Your task to perform on an android device: Do I have any events this weekend? Image 0: 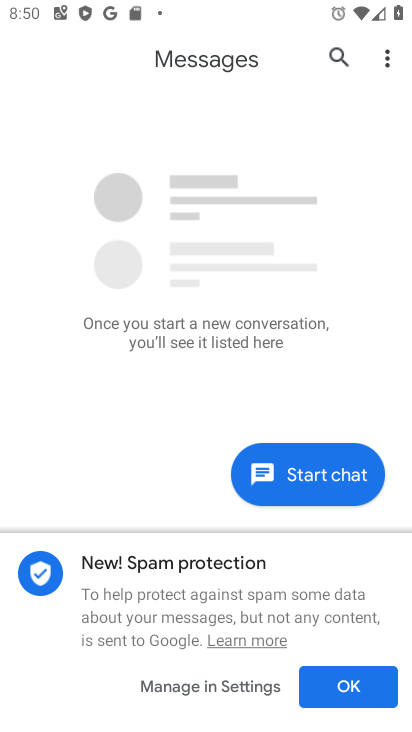
Step 0: press home button
Your task to perform on an android device: Do I have any events this weekend? Image 1: 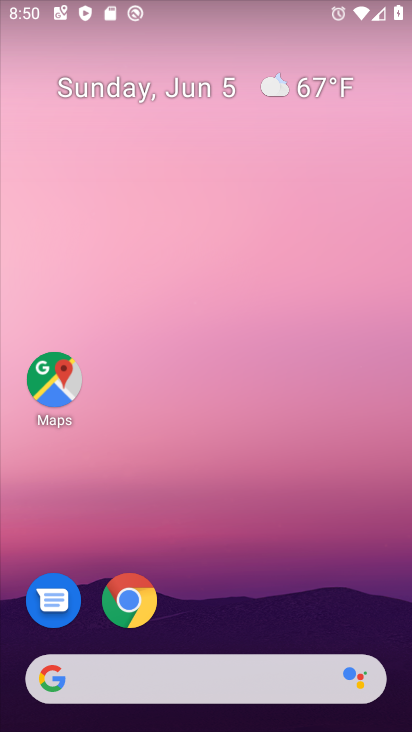
Step 1: drag from (400, 653) to (327, 22)
Your task to perform on an android device: Do I have any events this weekend? Image 2: 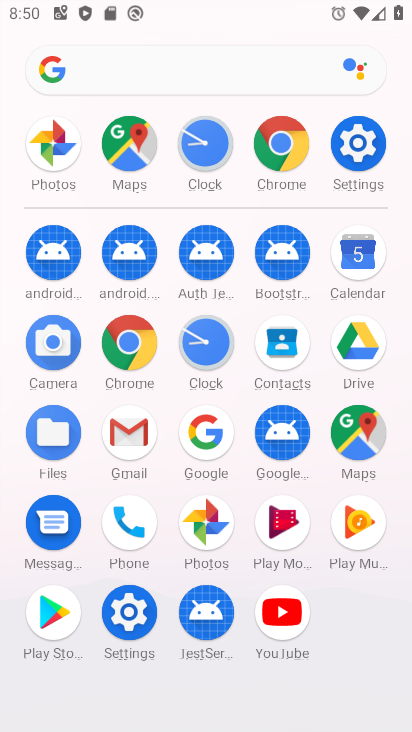
Step 2: click (354, 245)
Your task to perform on an android device: Do I have any events this weekend? Image 3: 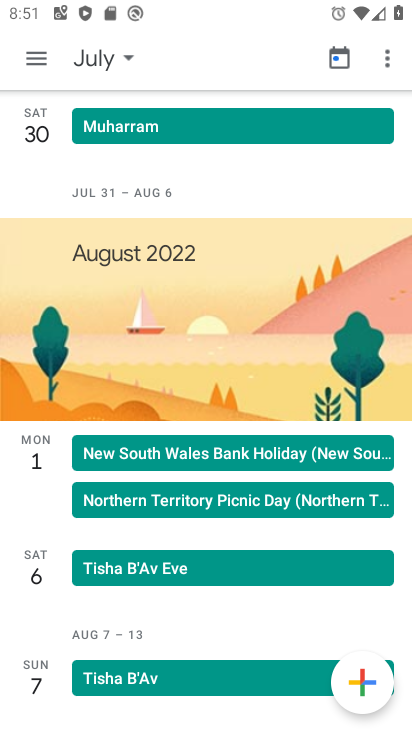
Step 3: click (85, 63)
Your task to perform on an android device: Do I have any events this weekend? Image 4: 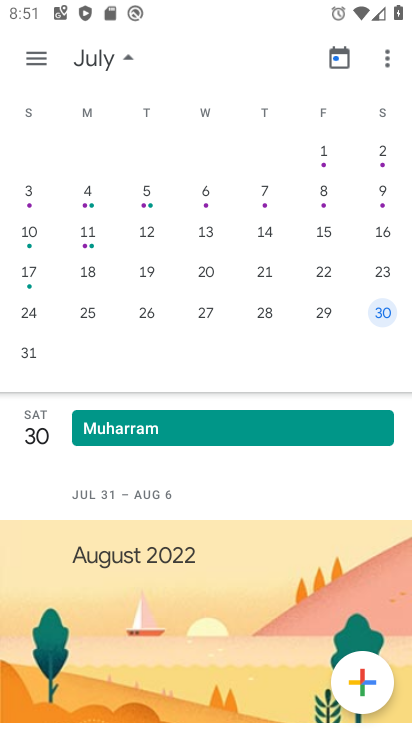
Step 4: drag from (65, 283) to (336, 277)
Your task to perform on an android device: Do I have any events this weekend? Image 5: 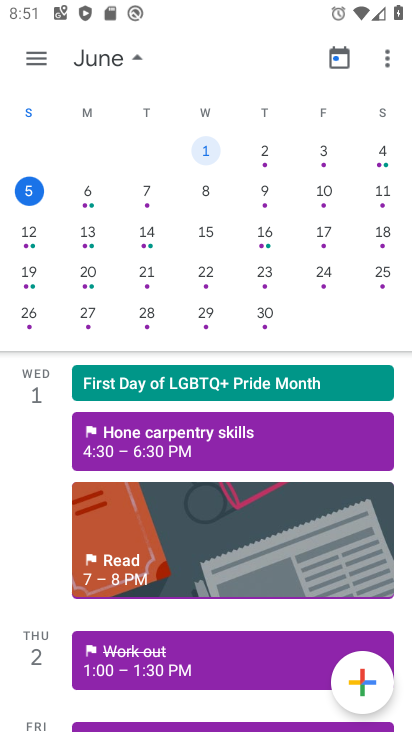
Step 5: click (381, 196)
Your task to perform on an android device: Do I have any events this weekend? Image 6: 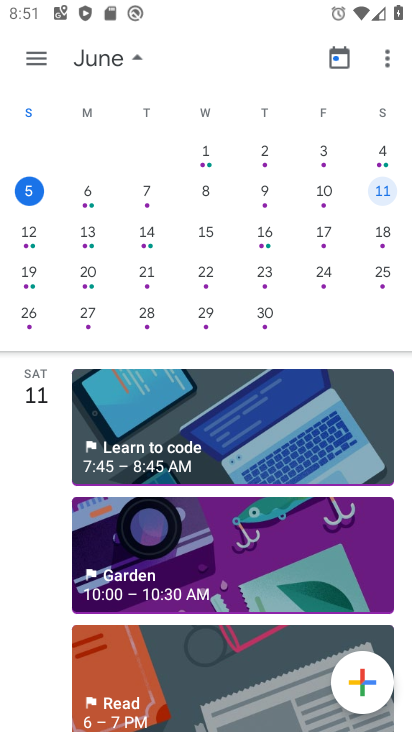
Step 6: click (249, 451)
Your task to perform on an android device: Do I have any events this weekend? Image 7: 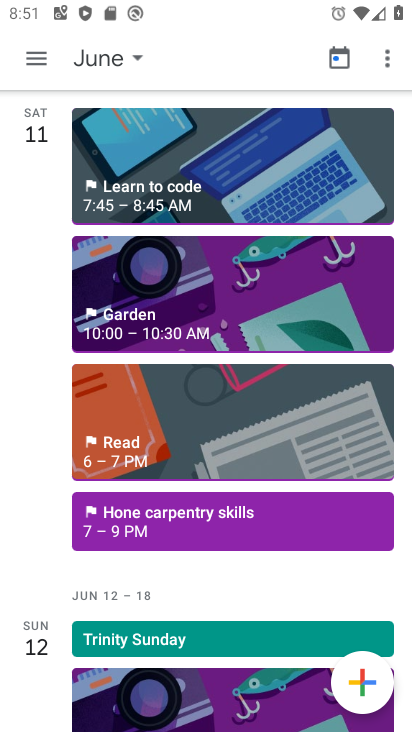
Step 7: click (198, 431)
Your task to perform on an android device: Do I have any events this weekend? Image 8: 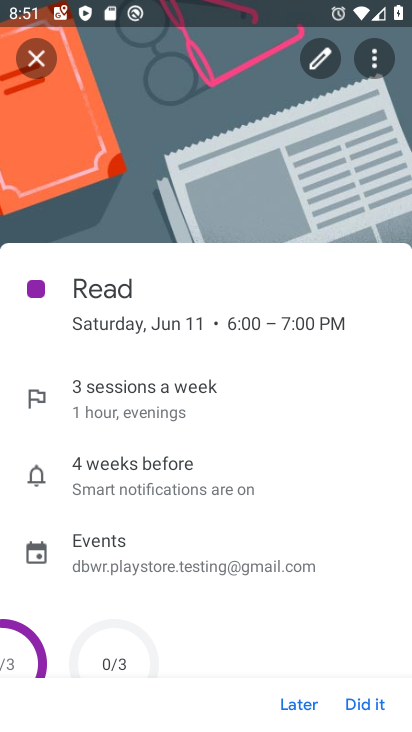
Step 8: task complete